Your task to perform on an android device: open app "Google Drive" Image 0: 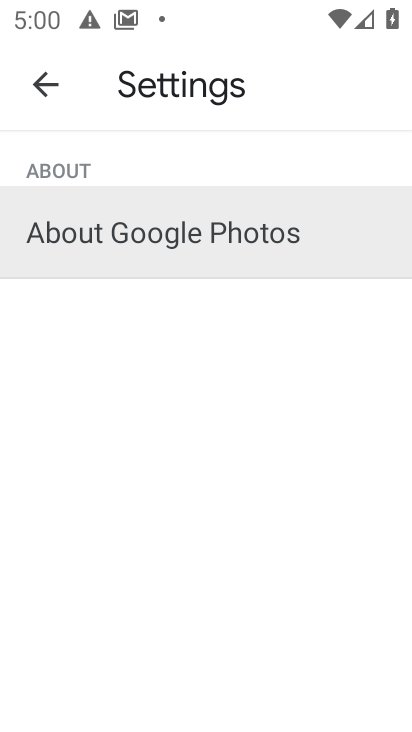
Step 0: press home button
Your task to perform on an android device: open app "Google Drive" Image 1: 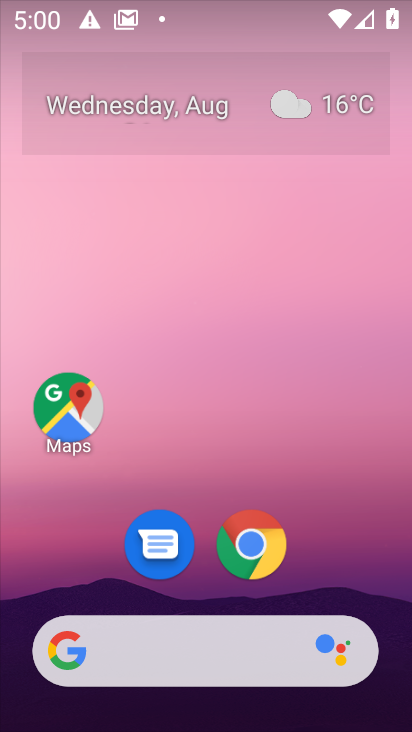
Step 1: drag from (196, 662) to (239, 45)
Your task to perform on an android device: open app "Google Drive" Image 2: 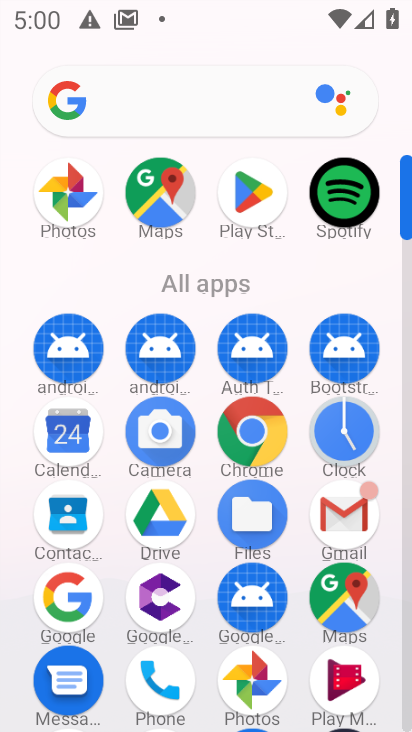
Step 2: click (253, 194)
Your task to perform on an android device: open app "Google Drive" Image 3: 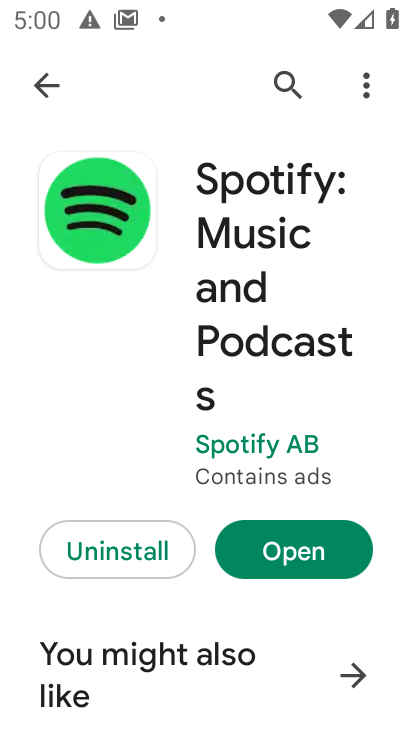
Step 3: press back button
Your task to perform on an android device: open app "Google Drive" Image 4: 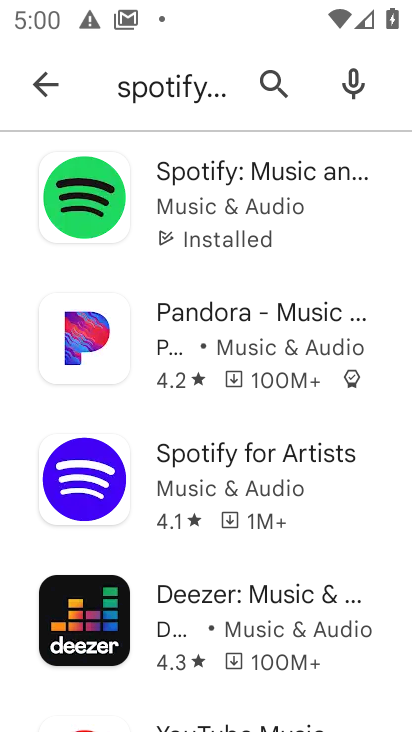
Step 4: press back button
Your task to perform on an android device: open app "Google Drive" Image 5: 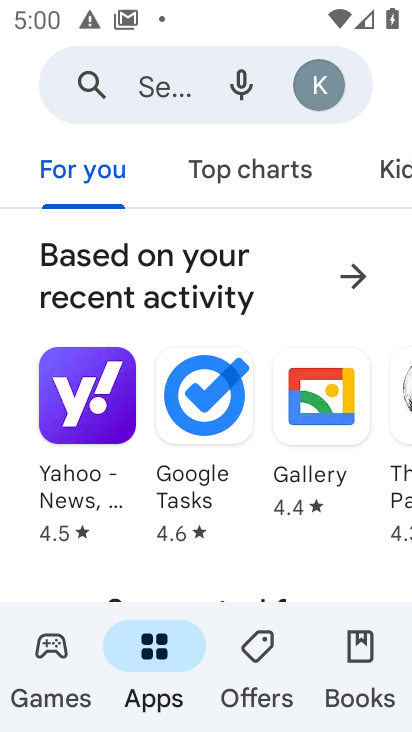
Step 5: click (178, 92)
Your task to perform on an android device: open app "Google Drive" Image 6: 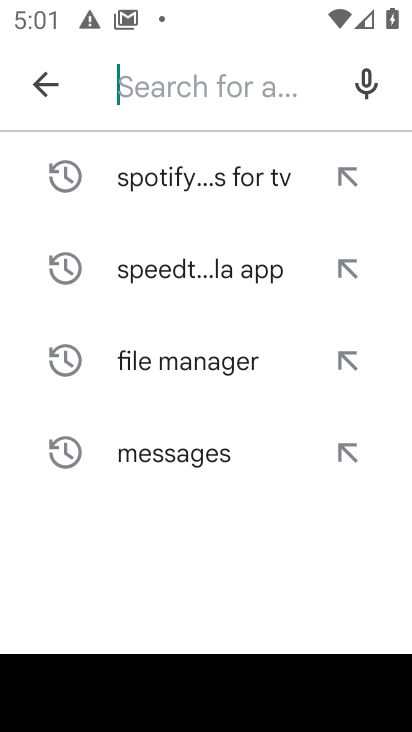
Step 6: type "Google Drive"
Your task to perform on an android device: open app "Google Drive" Image 7: 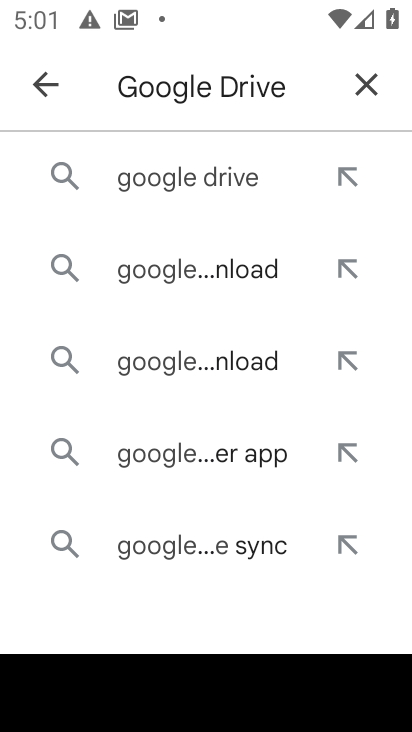
Step 7: click (202, 167)
Your task to perform on an android device: open app "Google Drive" Image 8: 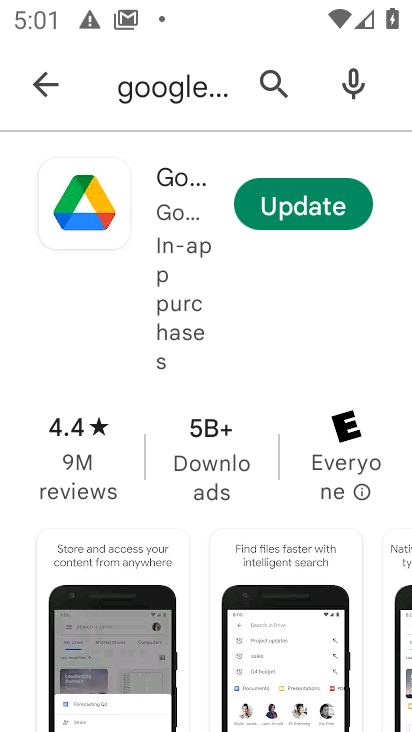
Step 8: click (181, 179)
Your task to perform on an android device: open app "Google Drive" Image 9: 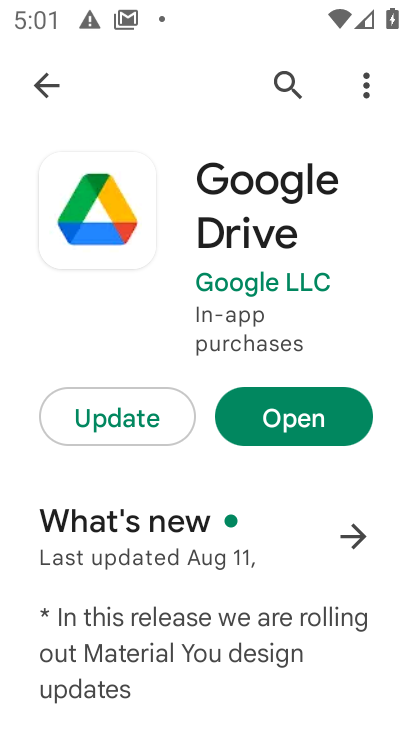
Step 9: click (306, 424)
Your task to perform on an android device: open app "Google Drive" Image 10: 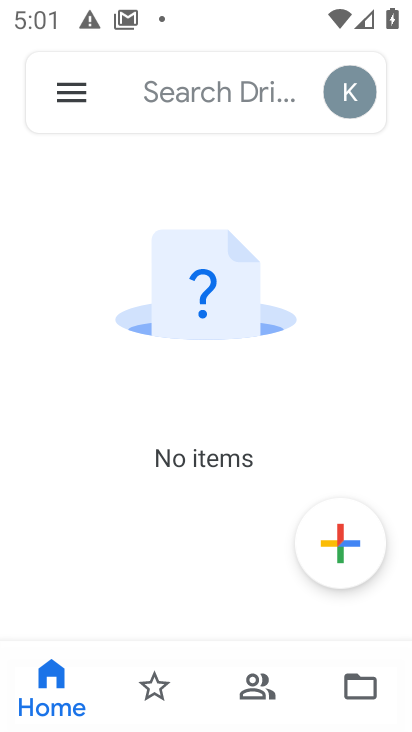
Step 10: task complete